Your task to perform on an android device: turn off priority inbox in the gmail app Image 0: 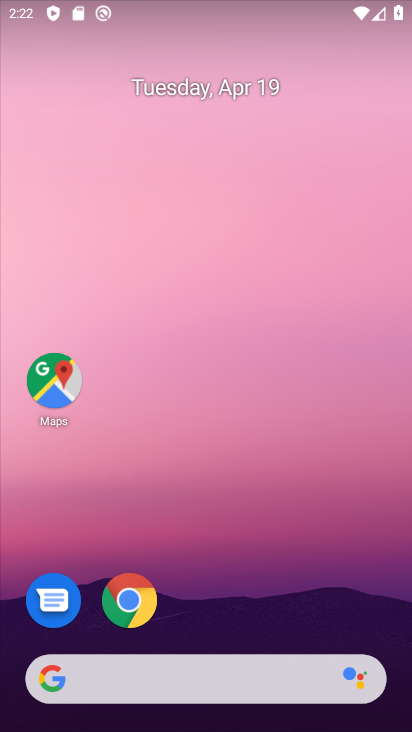
Step 0: drag from (354, 600) to (312, 81)
Your task to perform on an android device: turn off priority inbox in the gmail app Image 1: 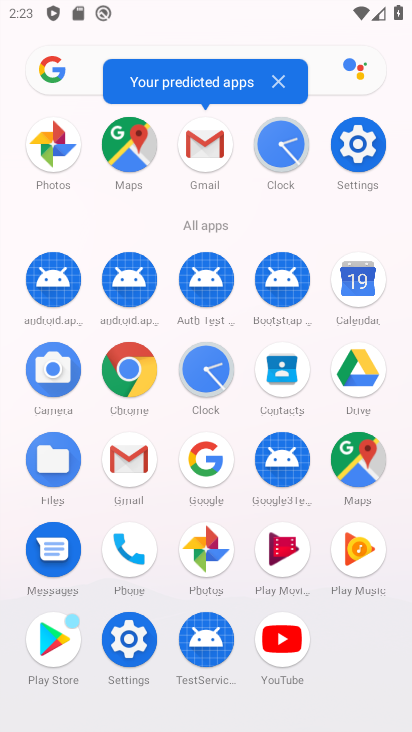
Step 1: click (126, 456)
Your task to perform on an android device: turn off priority inbox in the gmail app Image 2: 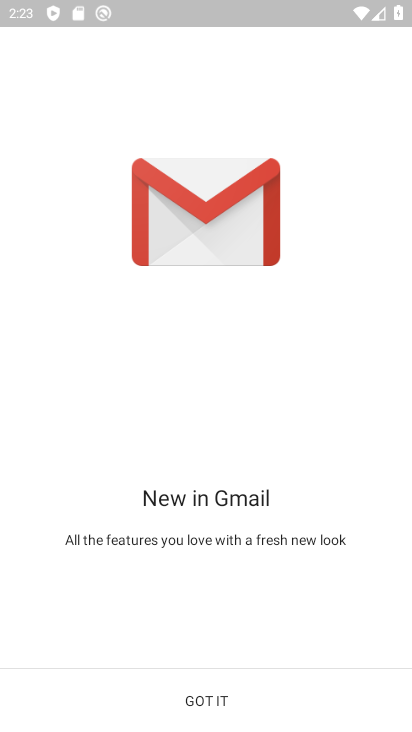
Step 2: click (207, 696)
Your task to perform on an android device: turn off priority inbox in the gmail app Image 3: 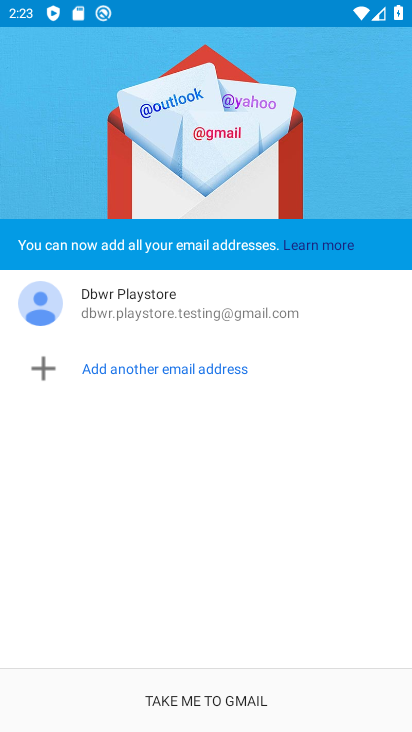
Step 3: click (207, 696)
Your task to perform on an android device: turn off priority inbox in the gmail app Image 4: 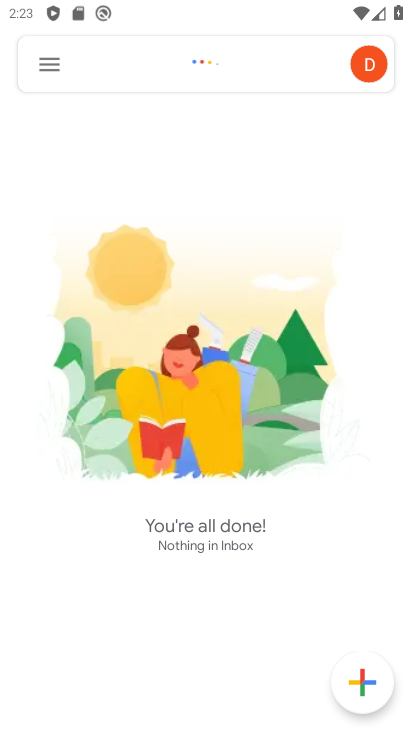
Step 4: click (47, 63)
Your task to perform on an android device: turn off priority inbox in the gmail app Image 5: 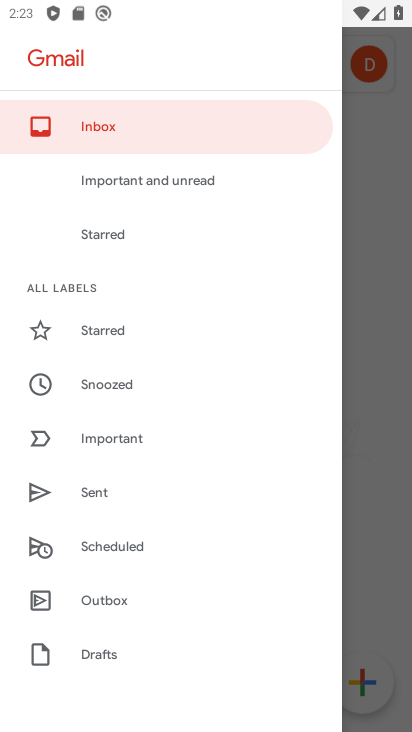
Step 5: drag from (211, 627) to (228, 275)
Your task to perform on an android device: turn off priority inbox in the gmail app Image 6: 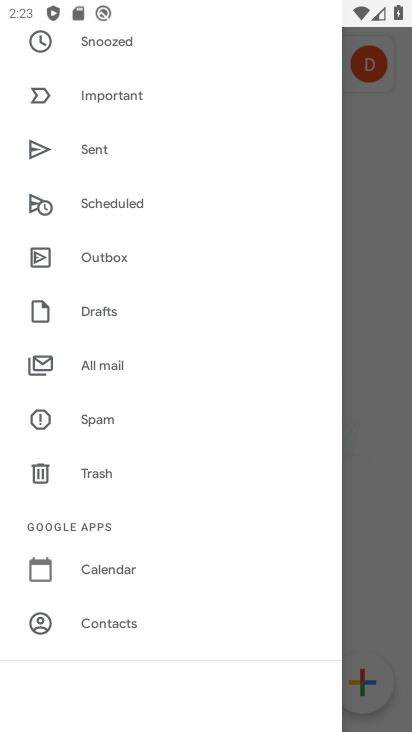
Step 6: drag from (187, 595) to (208, 195)
Your task to perform on an android device: turn off priority inbox in the gmail app Image 7: 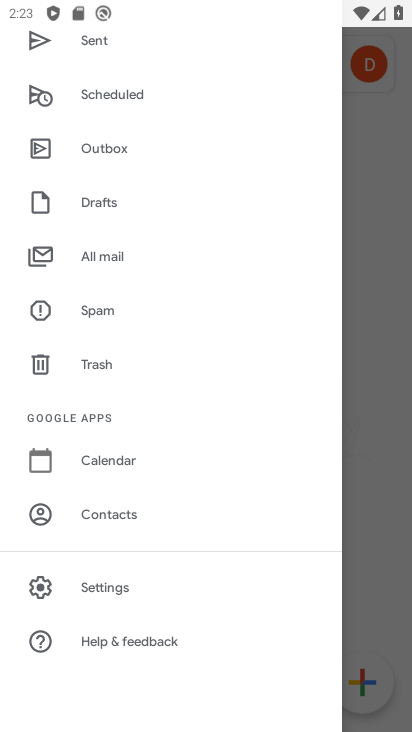
Step 7: click (113, 581)
Your task to perform on an android device: turn off priority inbox in the gmail app Image 8: 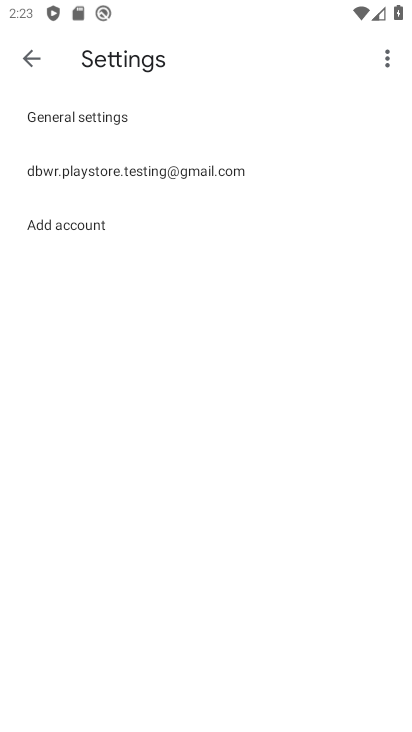
Step 8: click (100, 168)
Your task to perform on an android device: turn off priority inbox in the gmail app Image 9: 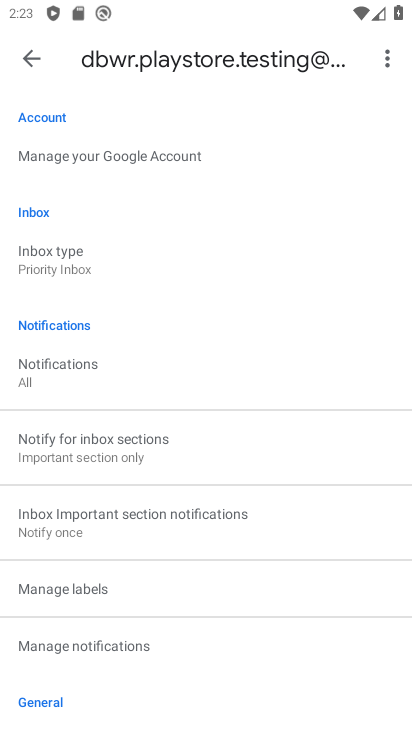
Step 9: click (55, 254)
Your task to perform on an android device: turn off priority inbox in the gmail app Image 10: 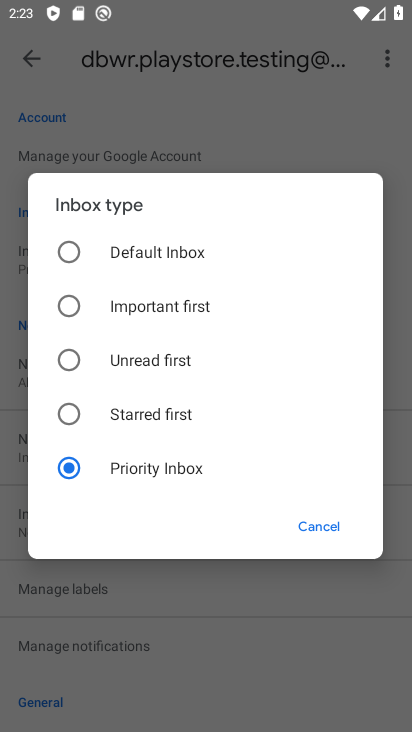
Step 10: click (69, 251)
Your task to perform on an android device: turn off priority inbox in the gmail app Image 11: 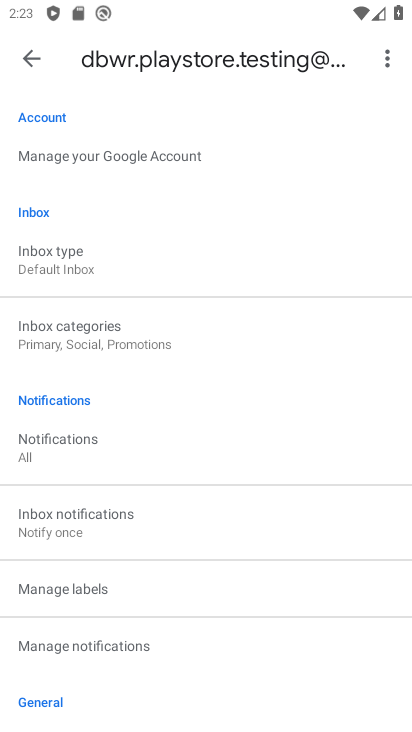
Step 11: task complete